Your task to perform on an android device: Show the shopping cart on ebay. Add dell xps to the cart on ebay Image 0: 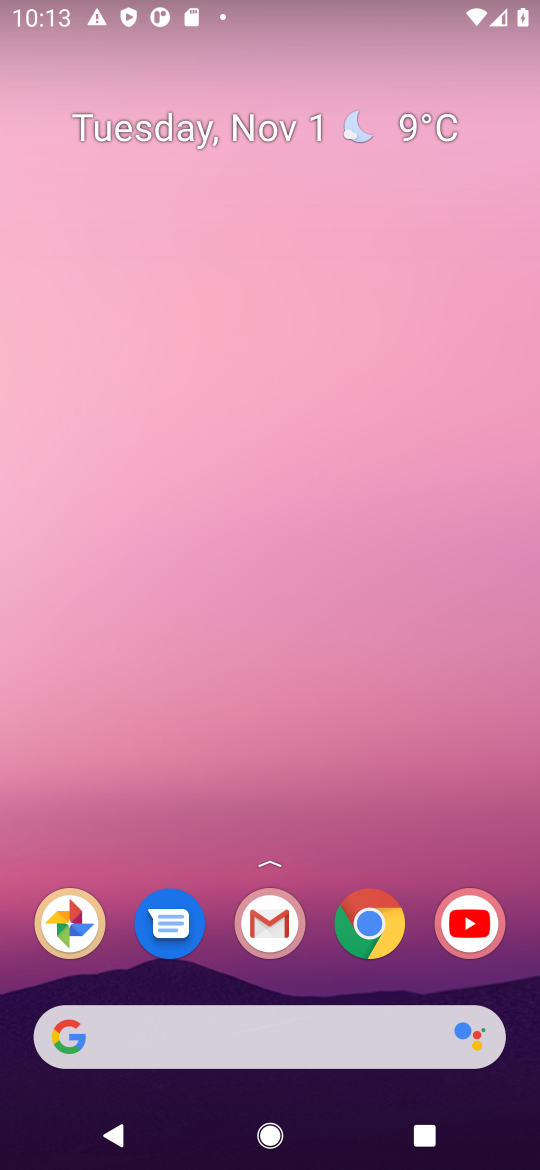
Step 0: drag from (332, 914) to (307, 4)
Your task to perform on an android device: Show the shopping cart on ebay. Add dell xps to the cart on ebay Image 1: 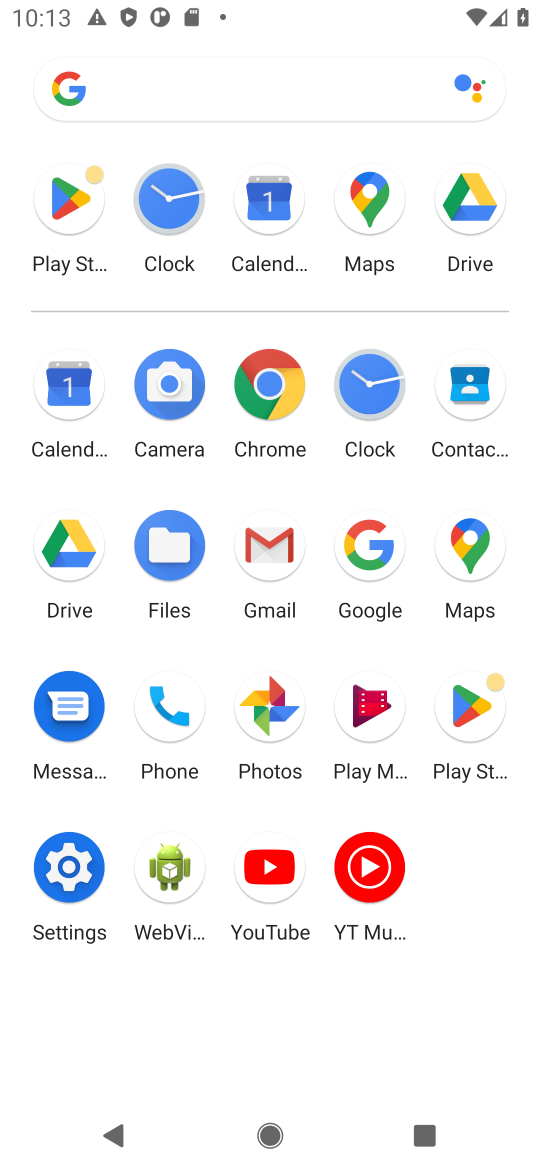
Step 1: click (282, 377)
Your task to perform on an android device: Show the shopping cart on ebay. Add dell xps to the cart on ebay Image 2: 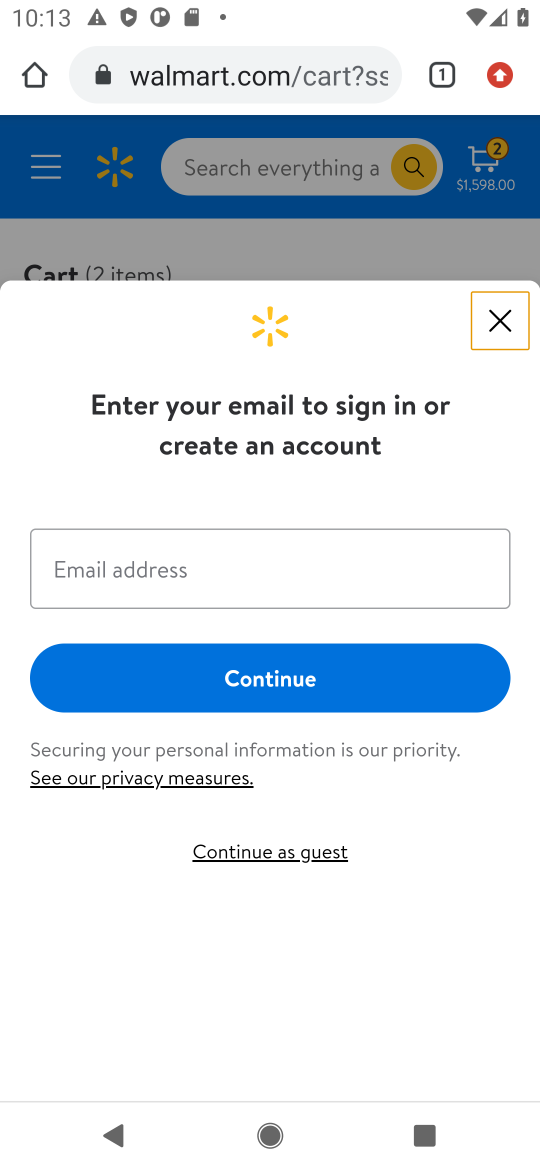
Step 2: click (262, 62)
Your task to perform on an android device: Show the shopping cart on ebay. Add dell xps to the cart on ebay Image 3: 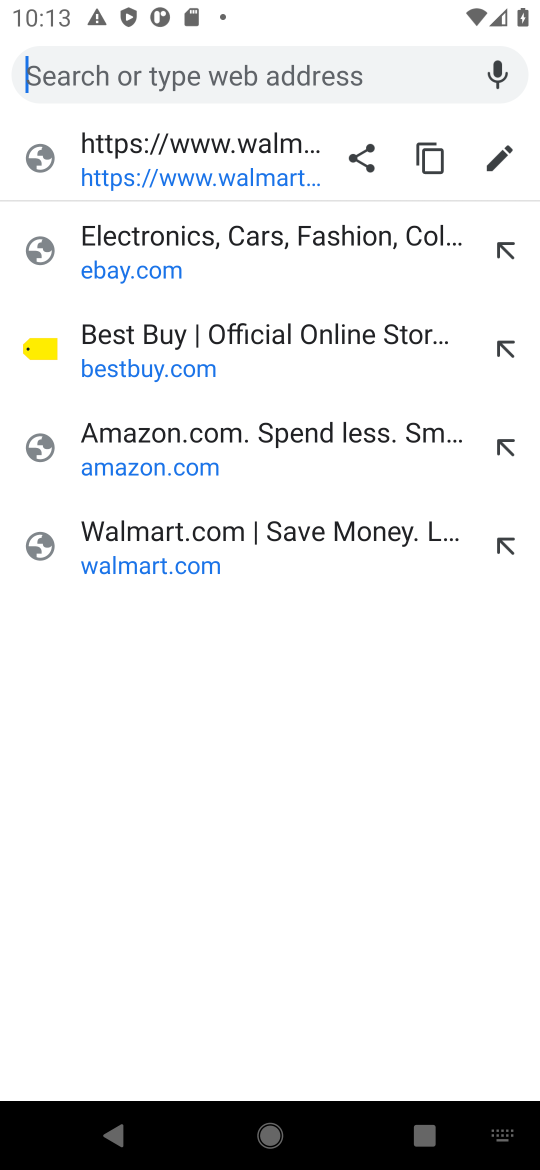
Step 3: type "ebay.com"
Your task to perform on an android device: Show the shopping cart on ebay. Add dell xps to the cart on ebay Image 4: 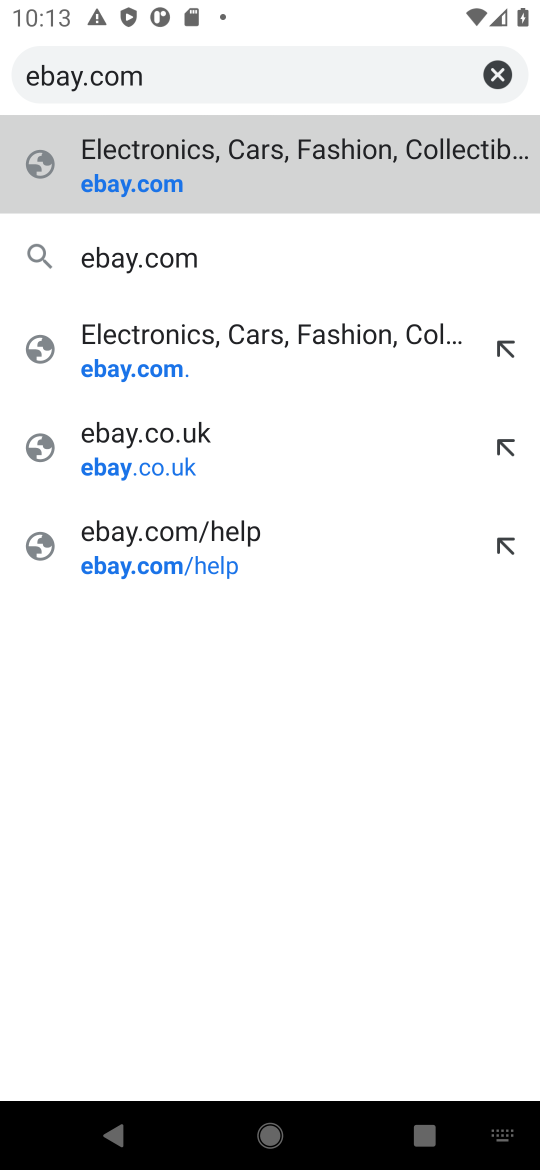
Step 4: press enter
Your task to perform on an android device: Show the shopping cart on ebay. Add dell xps to the cart on ebay Image 5: 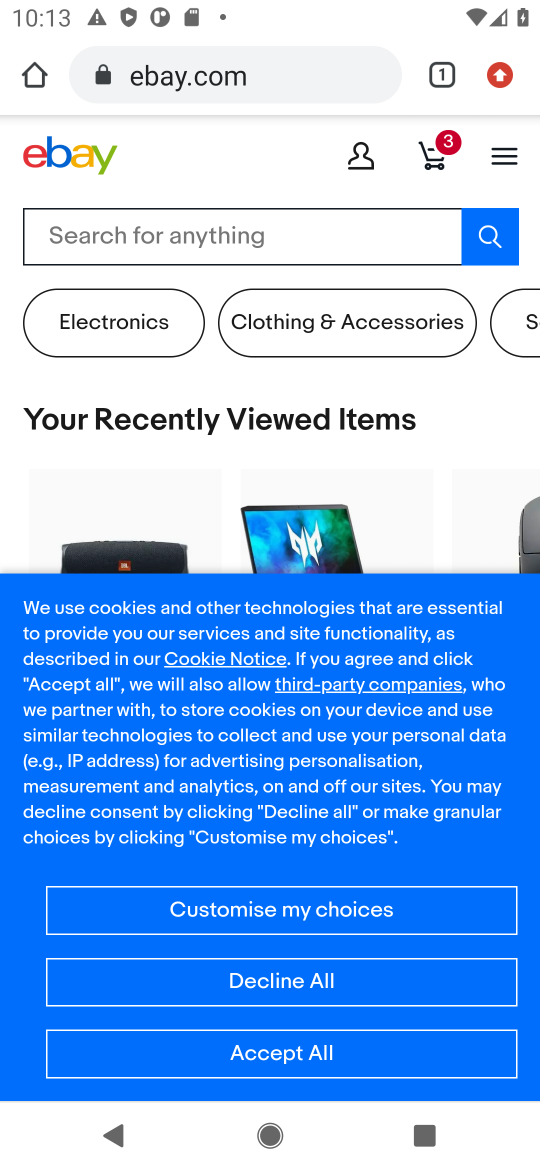
Step 5: click (440, 152)
Your task to perform on an android device: Show the shopping cart on ebay. Add dell xps to the cart on ebay Image 6: 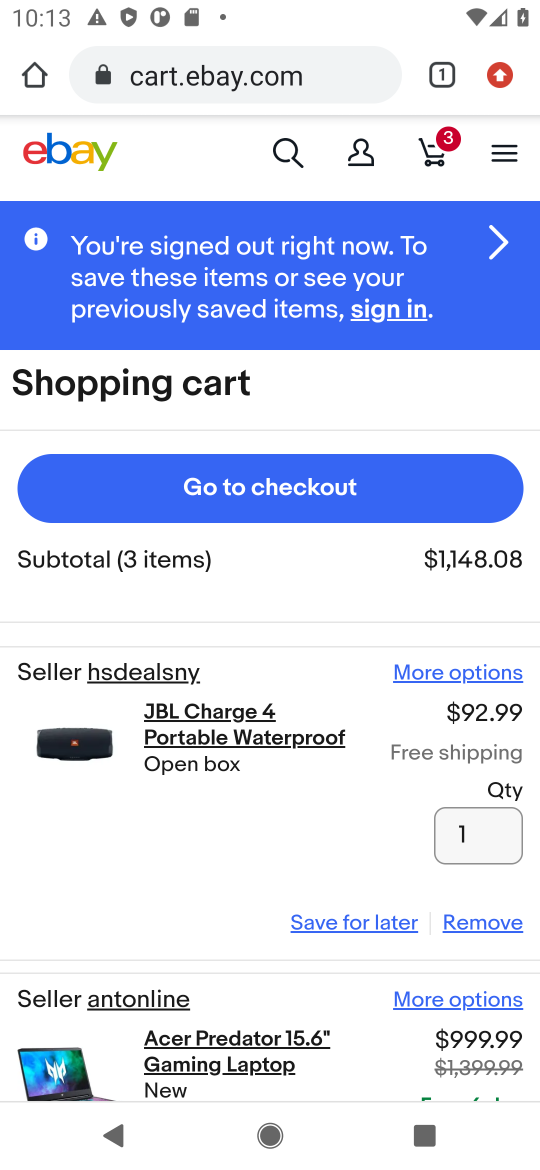
Step 6: click (286, 138)
Your task to perform on an android device: Show the shopping cart on ebay. Add dell xps to the cart on ebay Image 7: 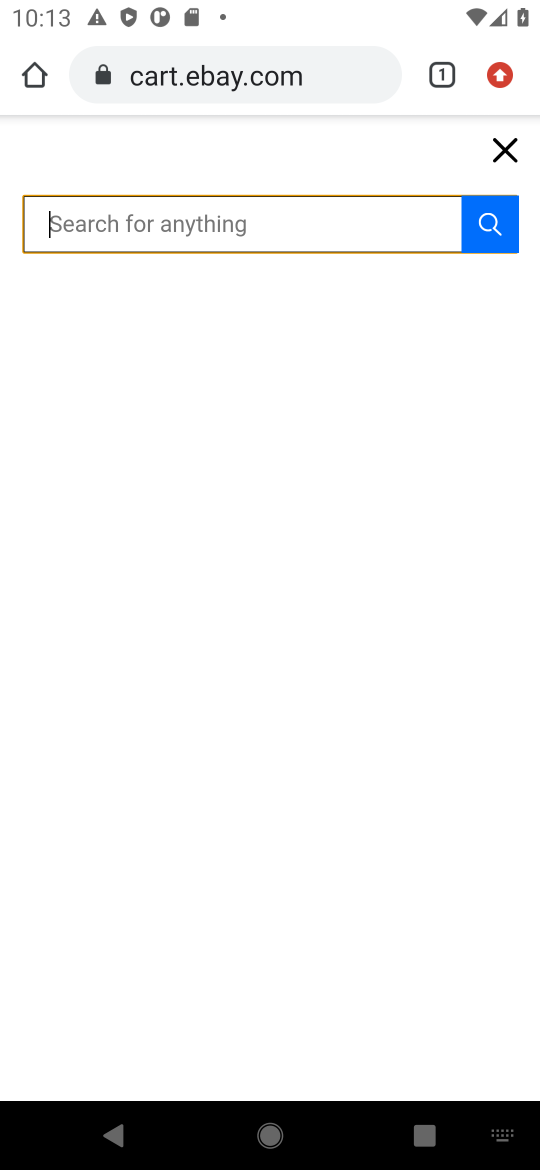
Step 7: type "dell xps"
Your task to perform on an android device: Show the shopping cart on ebay. Add dell xps to the cart on ebay Image 8: 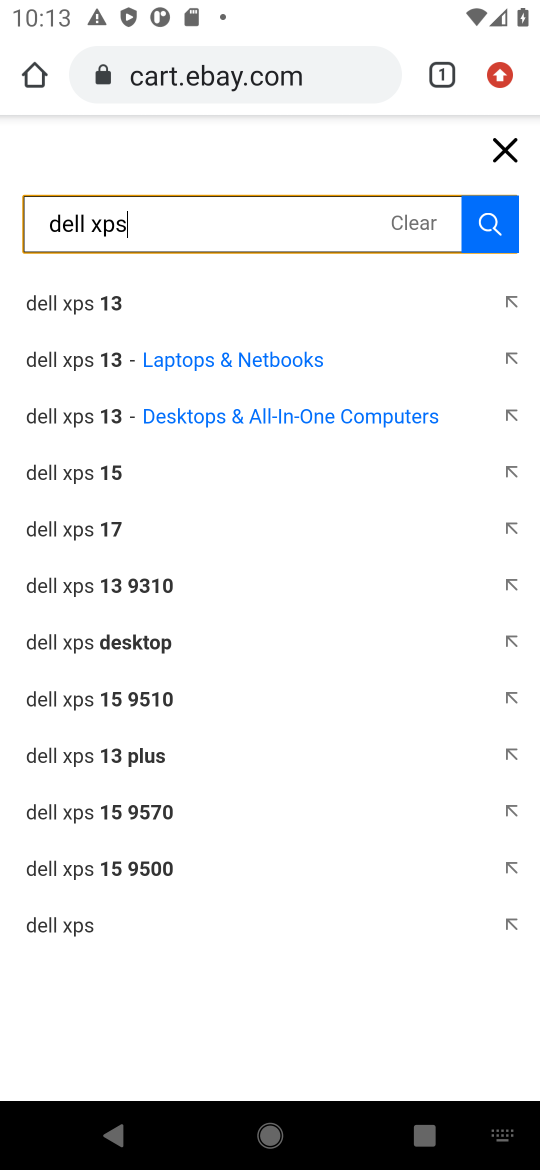
Step 8: press enter
Your task to perform on an android device: Show the shopping cart on ebay. Add dell xps to the cart on ebay Image 9: 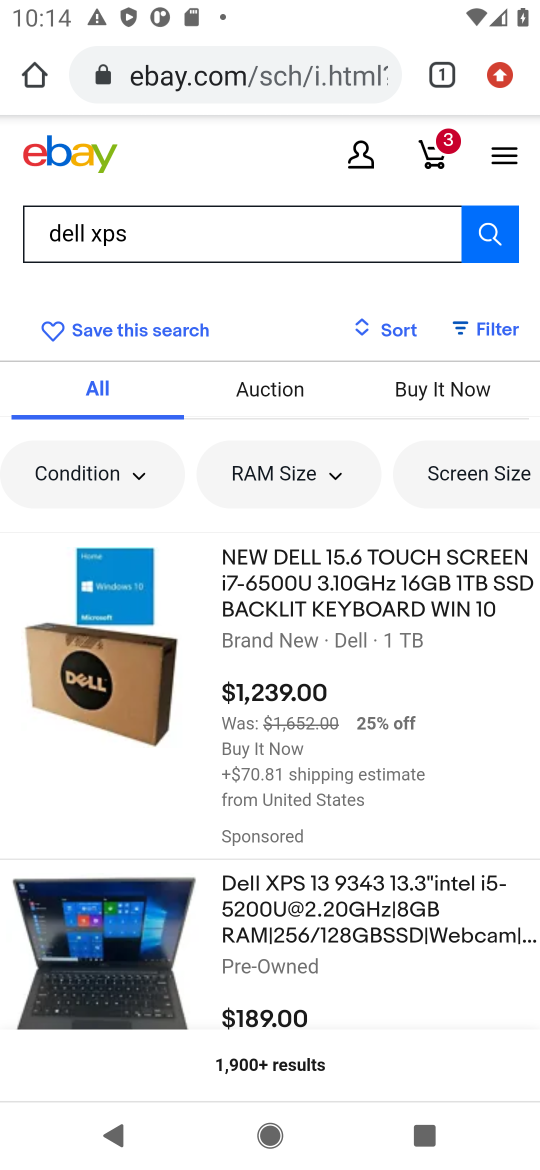
Step 9: click (89, 929)
Your task to perform on an android device: Show the shopping cart on ebay. Add dell xps to the cart on ebay Image 10: 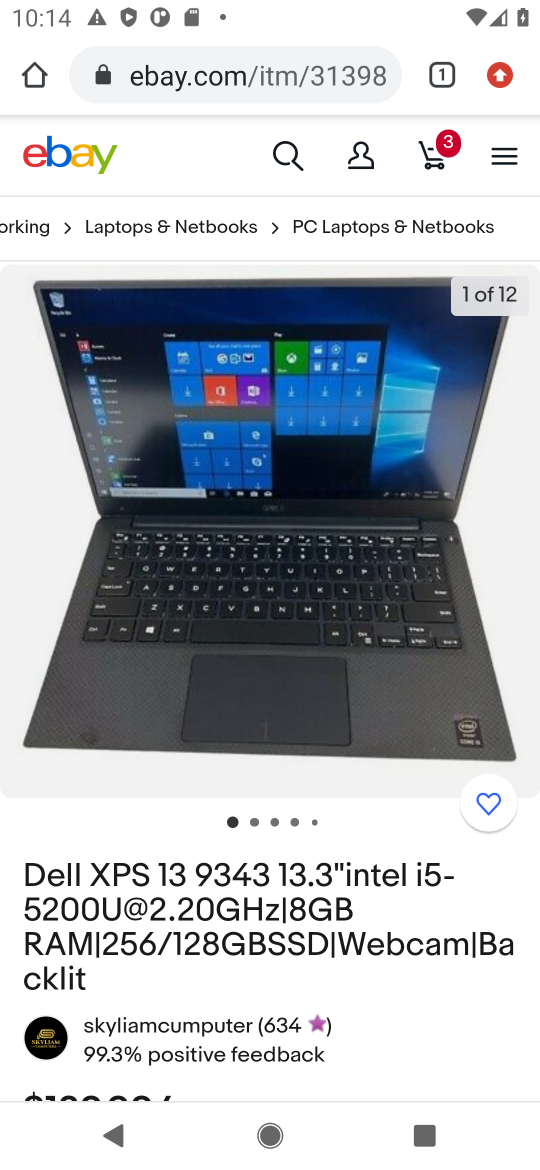
Step 10: drag from (322, 657) to (378, 69)
Your task to perform on an android device: Show the shopping cart on ebay. Add dell xps to the cart on ebay Image 11: 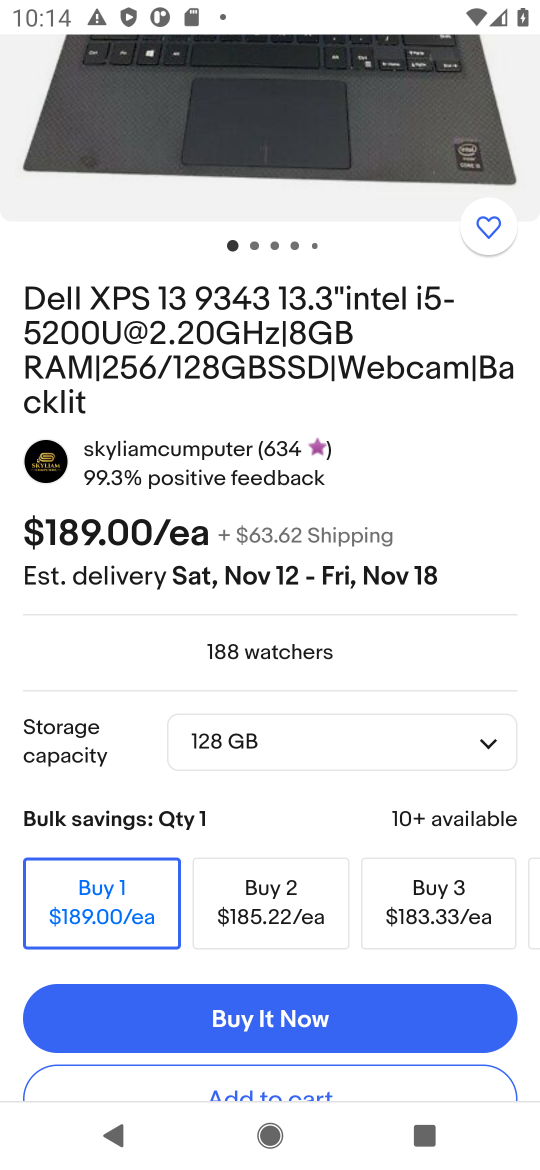
Step 11: drag from (390, 909) to (398, 505)
Your task to perform on an android device: Show the shopping cart on ebay. Add dell xps to the cart on ebay Image 12: 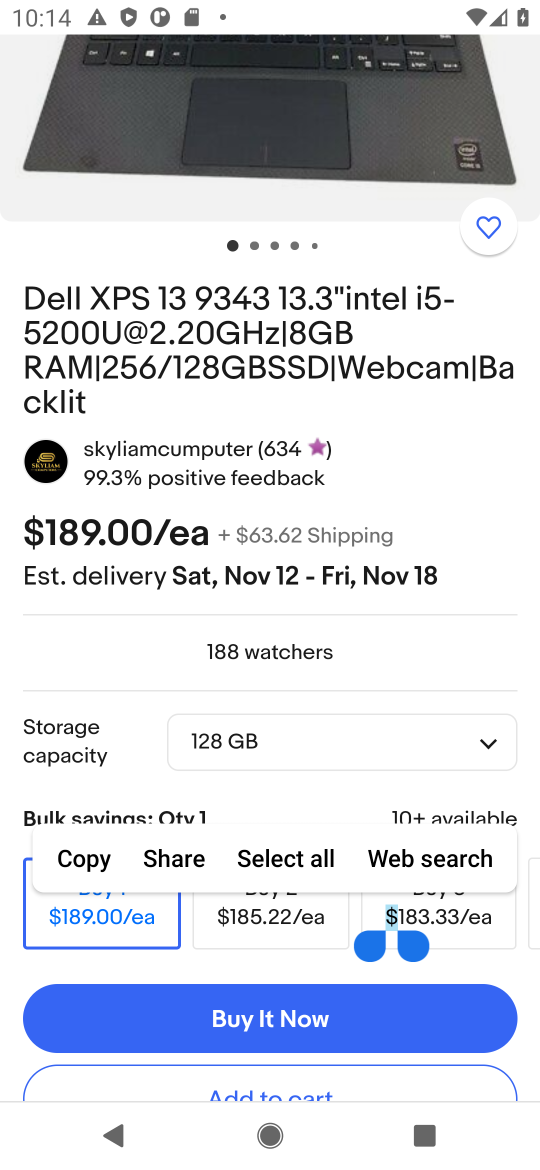
Step 12: drag from (383, 619) to (385, 246)
Your task to perform on an android device: Show the shopping cart on ebay. Add dell xps to the cart on ebay Image 13: 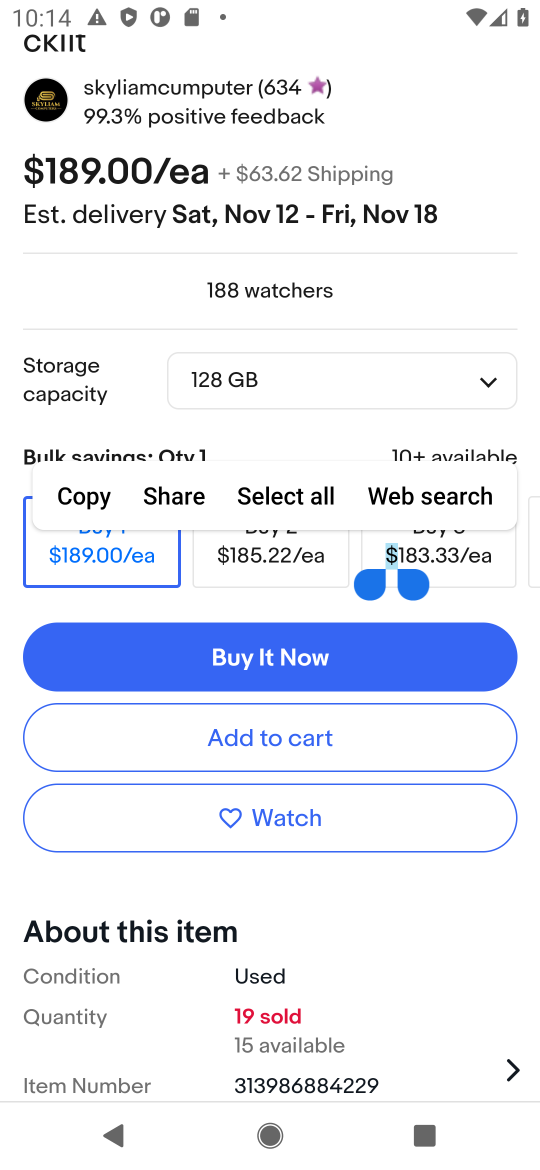
Step 13: click (372, 740)
Your task to perform on an android device: Show the shopping cart on ebay. Add dell xps to the cart on ebay Image 14: 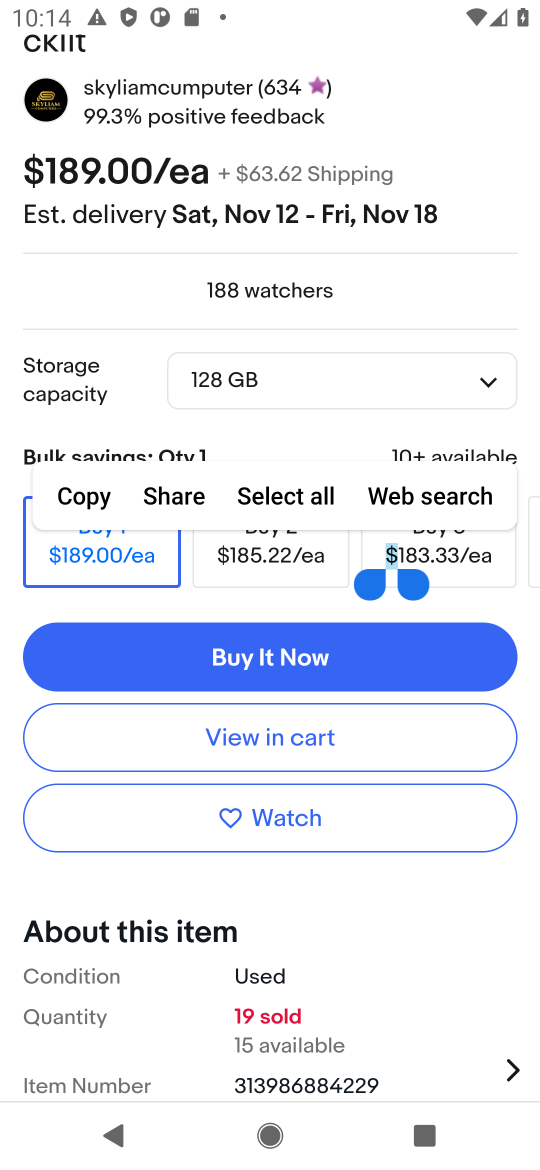
Step 14: task complete